Your task to perform on an android device: Go to Yahoo.com Image 0: 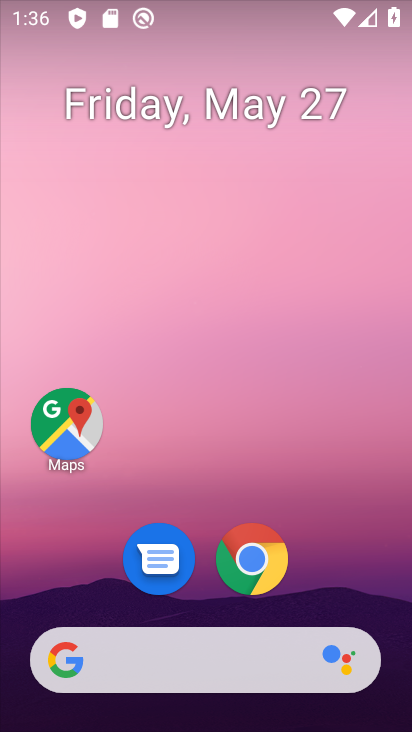
Step 0: click (260, 571)
Your task to perform on an android device: Go to Yahoo.com Image 1: 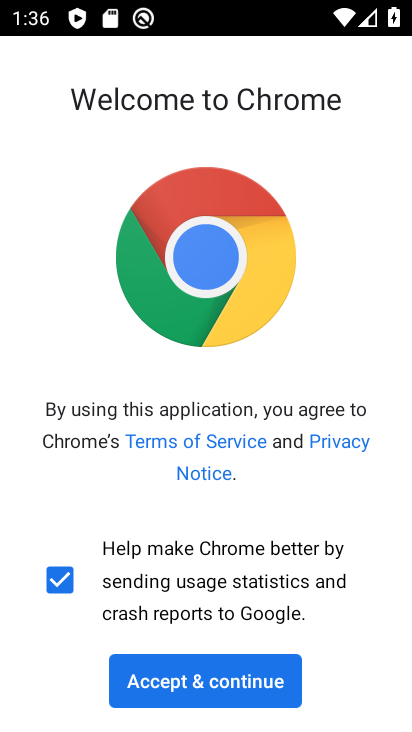
Step 1: click (230, 681)
Your task to perform on an android device: Go to Yahoo.com Image 2: 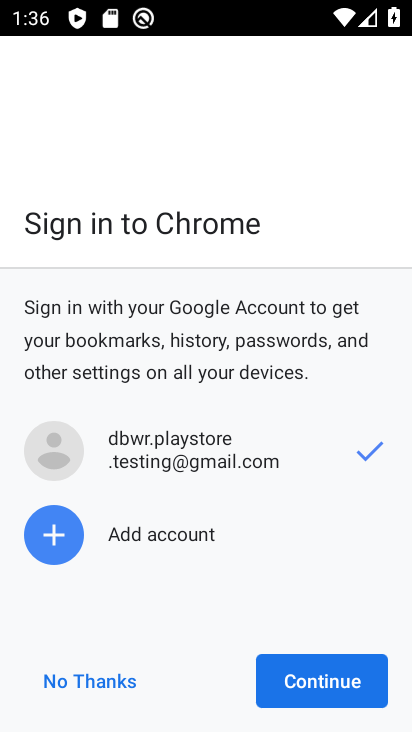
Step 2: click (297, 696)
Your task to perform on an android device: Go to Yahoo.com Image 3: 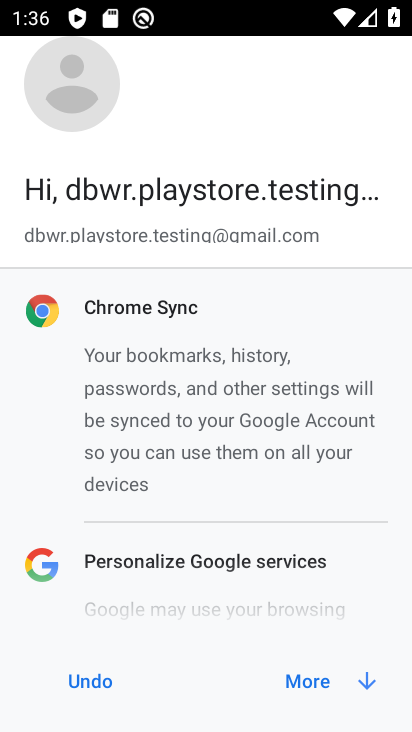
Step 3: click (306, 680)
Your task to perform on an android device: Go to Yahoo.com Image 4: 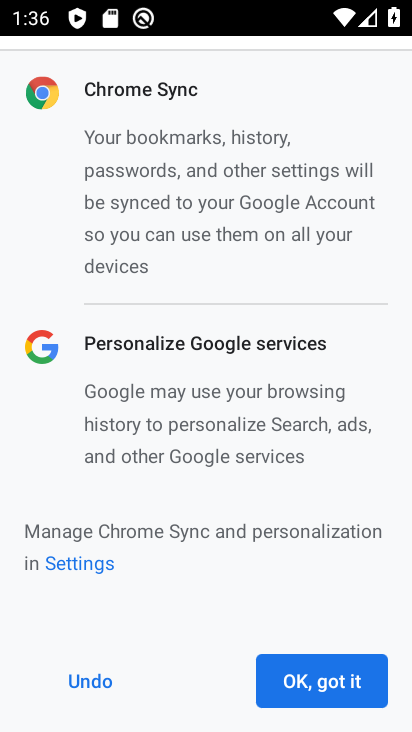
Step 4: click (365, 679)
Your task to perform on an android device: Go to Yahoo.com Image 5: 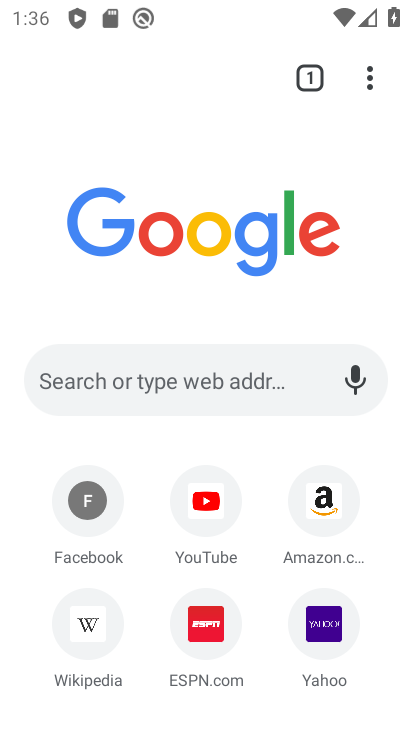
Step 5: click (330, 639)
Your task to perform on an android device: Go to Yahoo.com Image 6: 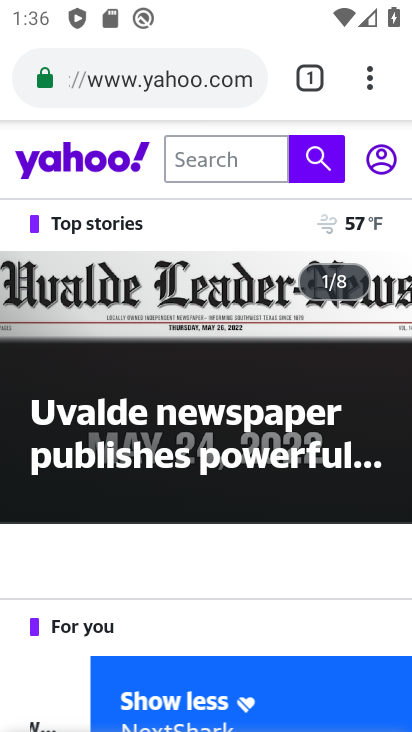
Step 6: task complete